Your task to perform on an android device: check battery use Image 0: 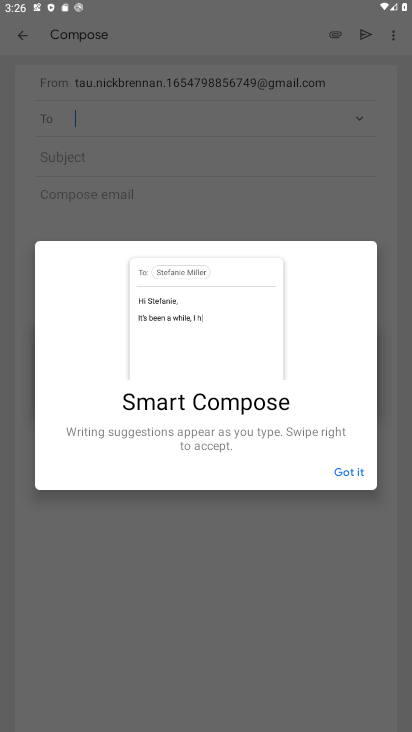
Step 0: press home button
Your task to perform on an android device: check battery use Image 1: 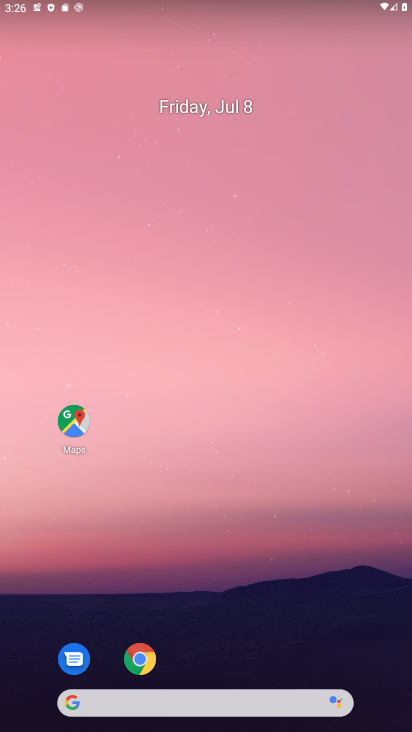
Step 1: drag from (249, 634) to (248, 211)
Your task to perform on an android device: check battery use Image 2: 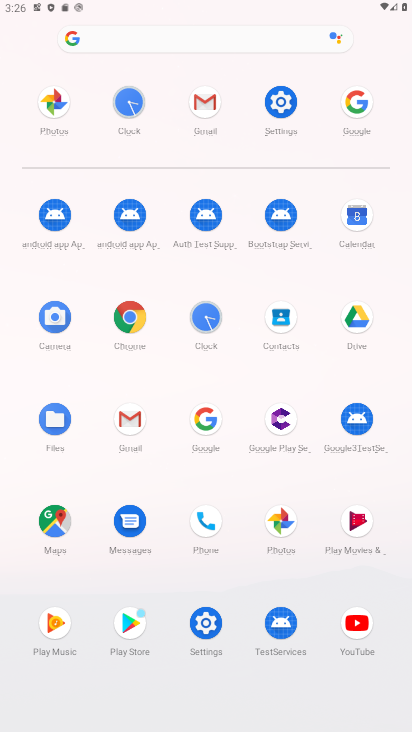
Step 2: click (272, 101)
Your task to perform on an android device: check battery use Image 3: 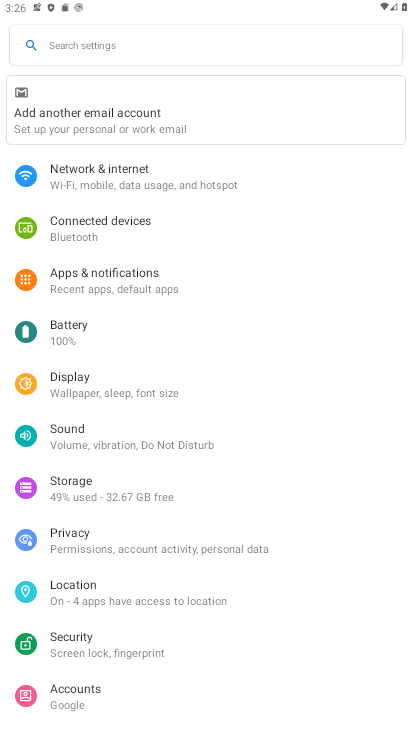
Step 3: click (102, 342)
Your task to perform on an android device: check battery use Image 4: 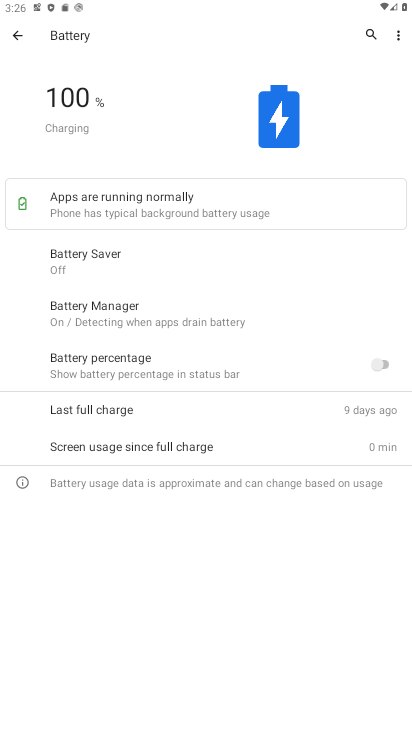
Step 4: click (391, 35)
Your task to perform on an android device: check battery use Image 5: 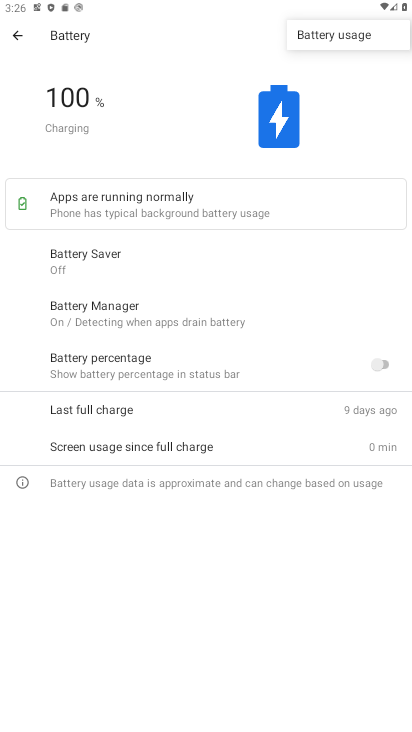
Step 5: click (377, 32)
Your task to perform on an android device: check battery use Image 6: 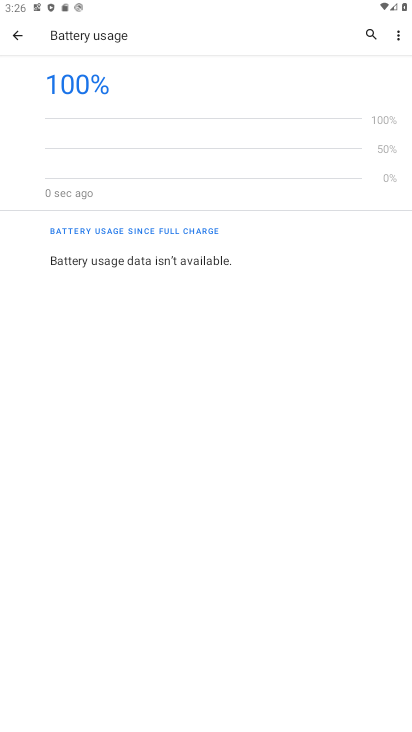
Step 6: task complete